Your task to perform on an android device: change text size in settings app Image 0: 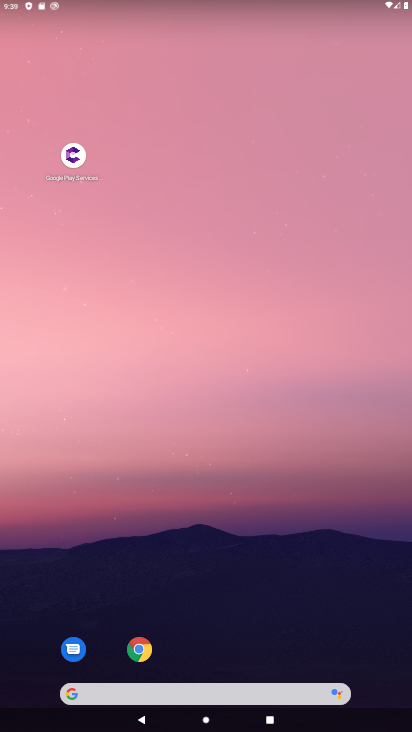
Step 0: drag from (300, 622) to (239, 65)
Your task to perform on an android device: change text size in settings app Image 1: 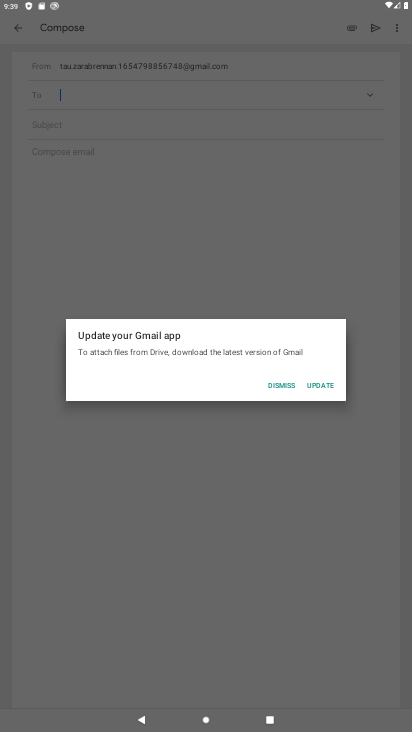
Step 1: press home button
Your task to perform on an android device: change text size in settings app Image 2: 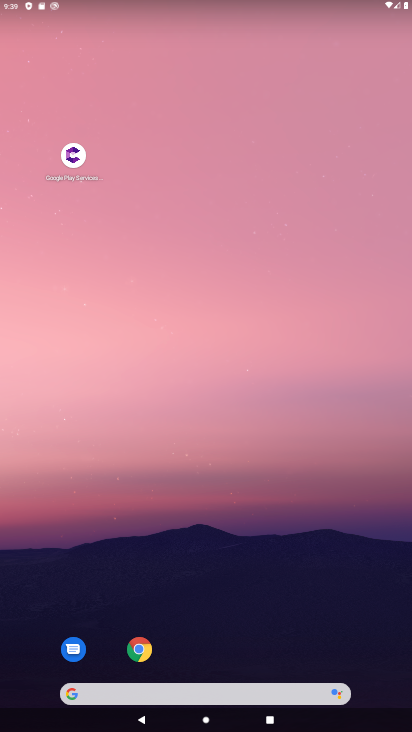
Step 2: drag from (300, 637) to (268, 26)
Your task to perform on an android device: change text size in settings app Image 3: 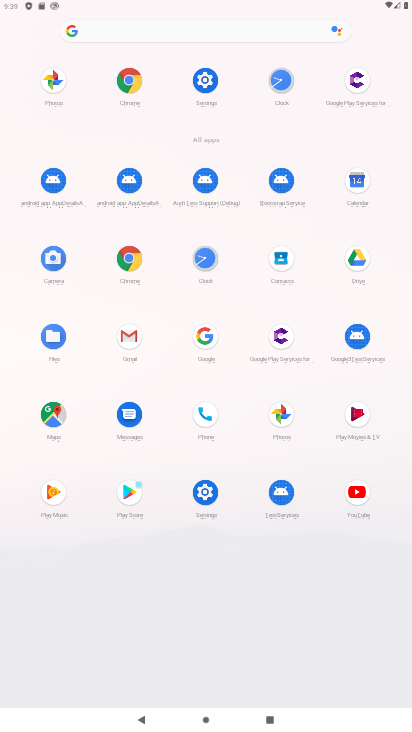
Step 3: click (217, 496)
Your task to perform on an android device: change text size in settings app Image 4: 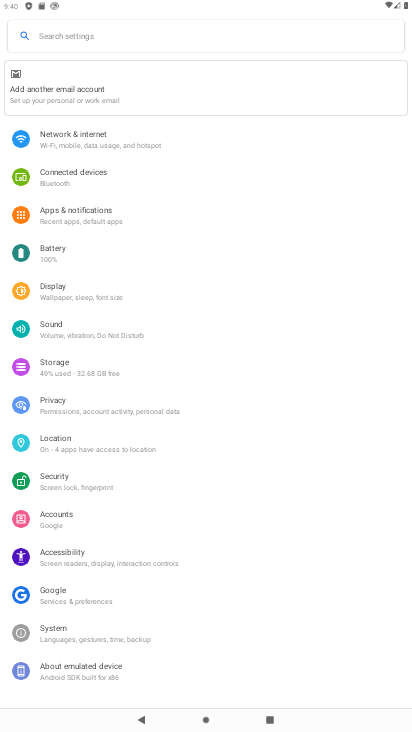
Step 4: drag from (399, 252) to (230, 276)
Your task to perform on an android device: change text size in settings app Image 5: 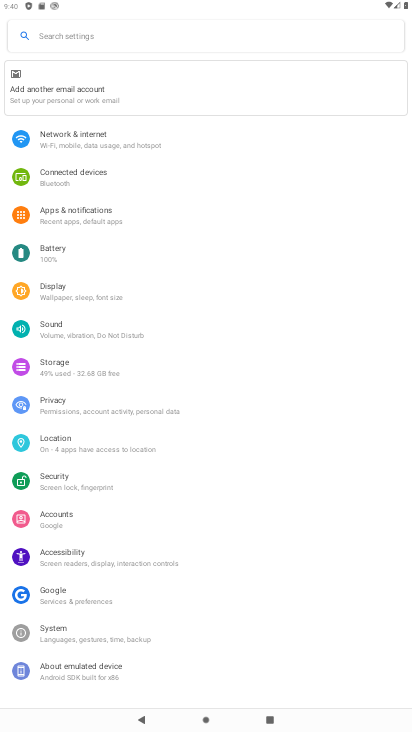
Step 5: click (93, 297)
Your task to perform on an android device: change text size in settings app Image 6: 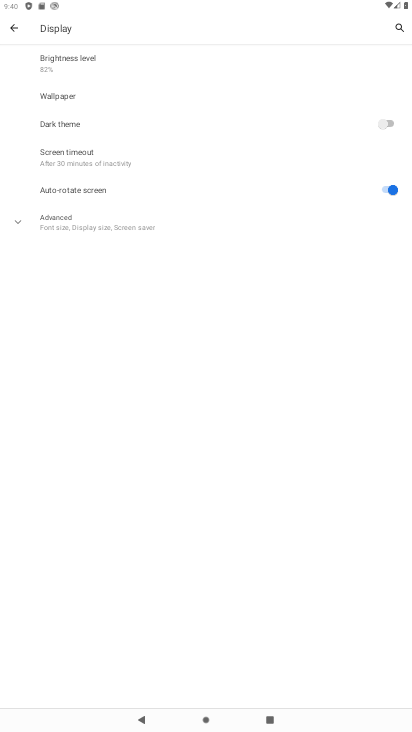
Step 6: drag from (93, 299) to (218, 303)
Your task to perform on an android device: change text size in settings app Image 7: 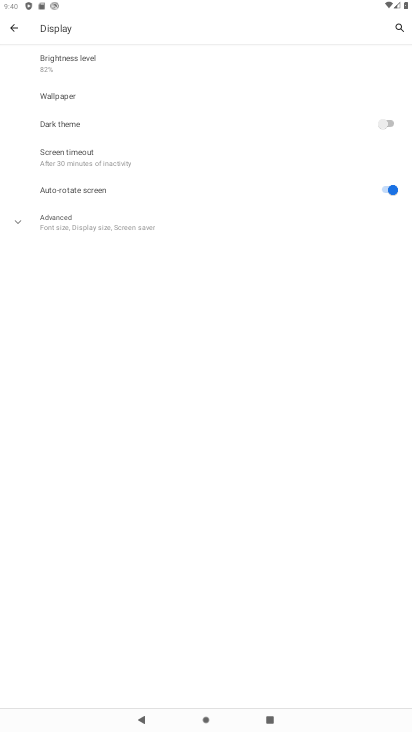
Step 7: drag from (142, 159) to (108, 230)
Your task to perform on an android device: change text size in settings app Image 8: 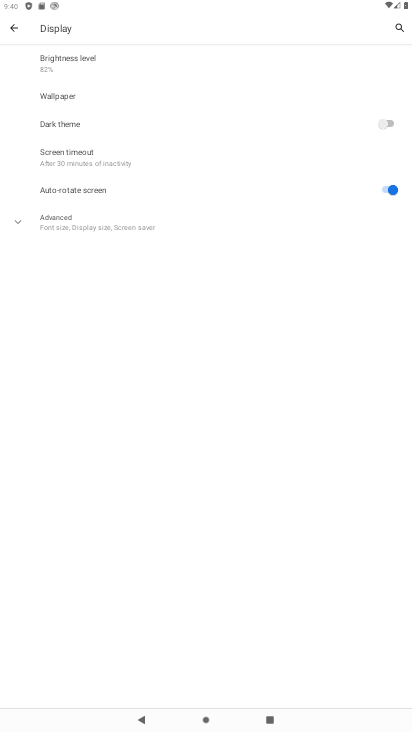
Step 8: click (109, 228)
Your task to perform on an android device: change text size in settings app Image 9: 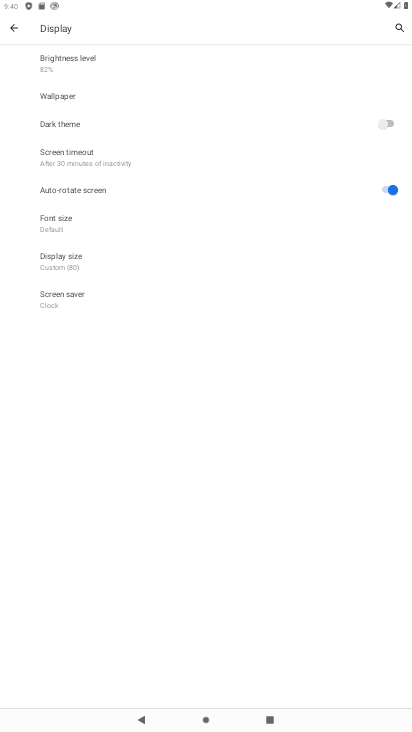
Step 9: click (73, 224)
Your task to perform on an android device: change text size in settings app Image 10: 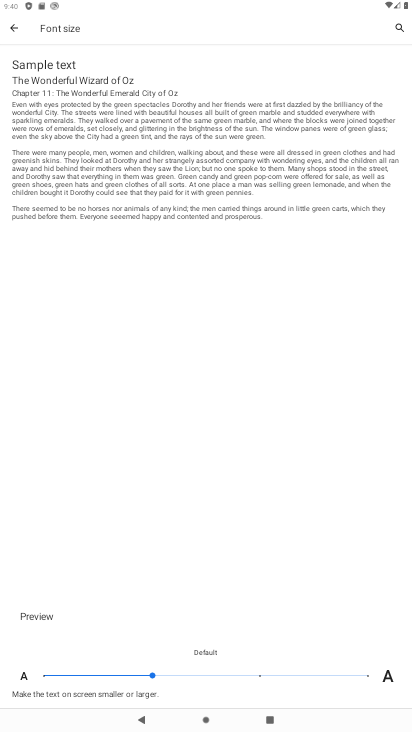
Step 10: click (223, 667)
Your task to perform on an android device: change text size in settings app Image 11: 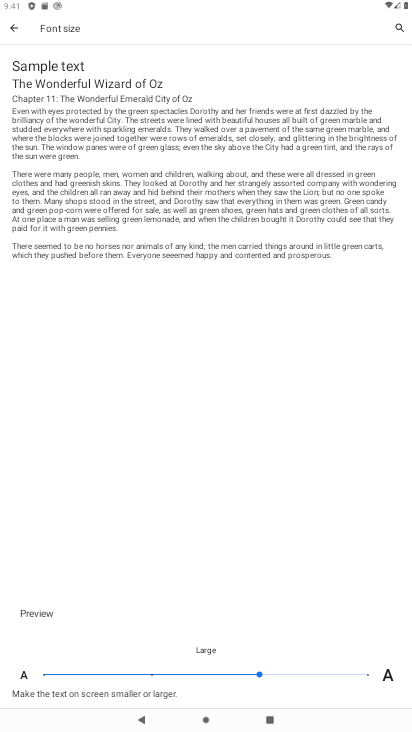
Step 11: task complete